Your task to perform on an android device: delete browsing data in the chrome app Image 0: 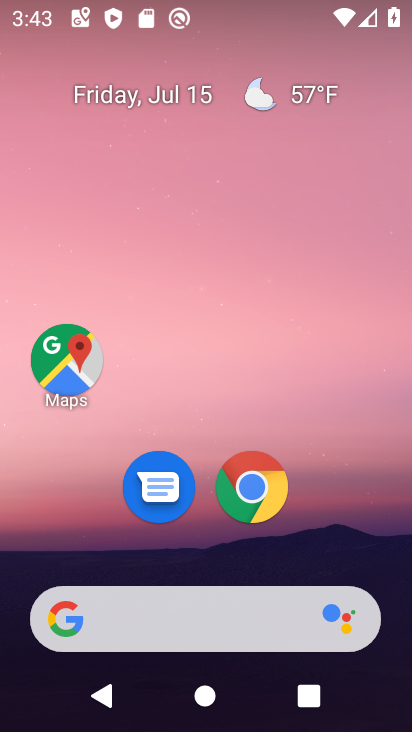
Step 0: drag from (194, 654) to (194, 312)
Your task to perform on an android device: delete browsing data in the chrome app Image 1: 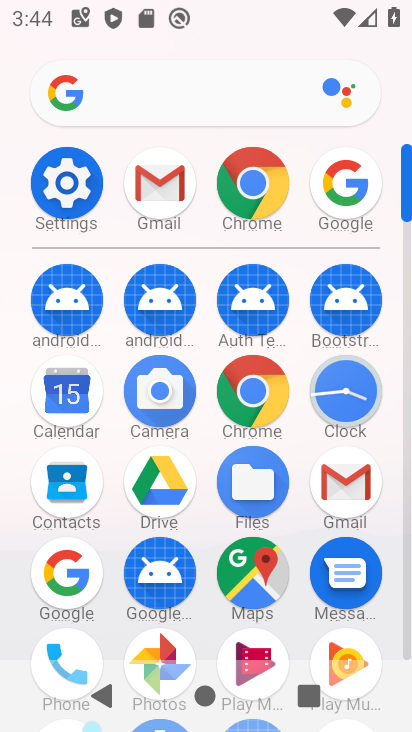
Step 1: click (261, 393)
Your task to perform on an android device: delete browsing data in the chrome app Image 2: 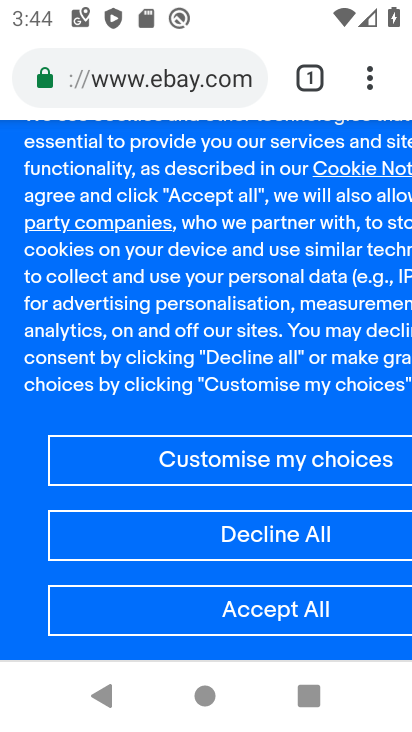
Step 2: click (372, 92)
Your task to perform on an android device: delete browsing data in the chrome app Image 3: 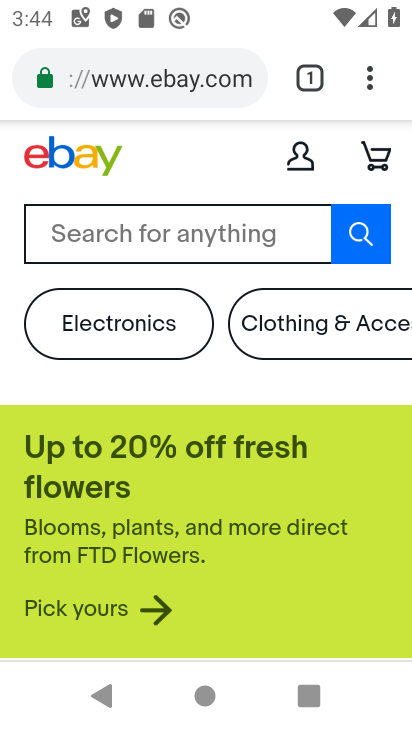
Step 3: click (370, 85)
Your task to perform on an android device: delete browsing data in the chrome app Image 4: 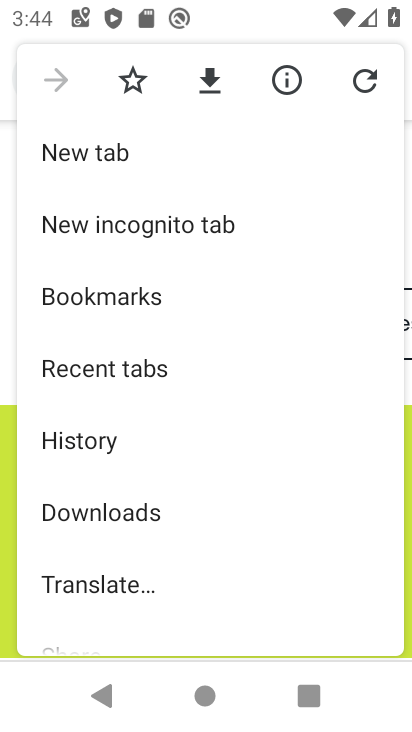
Step 4: click (94, 440)
Your task to perform on an android device: delete browsing data in the chrome app Image 5: 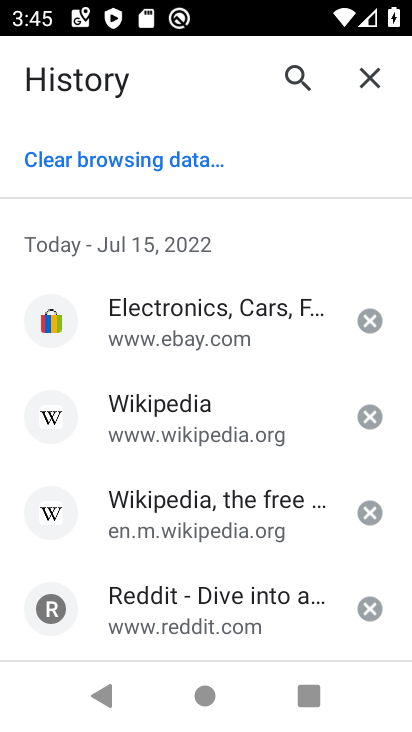
Step 5: click (102, 166)
Your task to perform on an android device: delete browsing data in the chrome app Image 6: 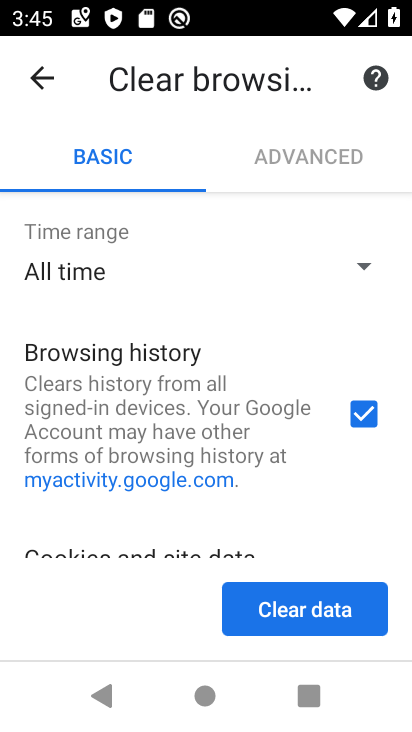
Step 6: click (351, 599)
Your task to perform on an android device: delete browsing data in the chrome app Image 7: 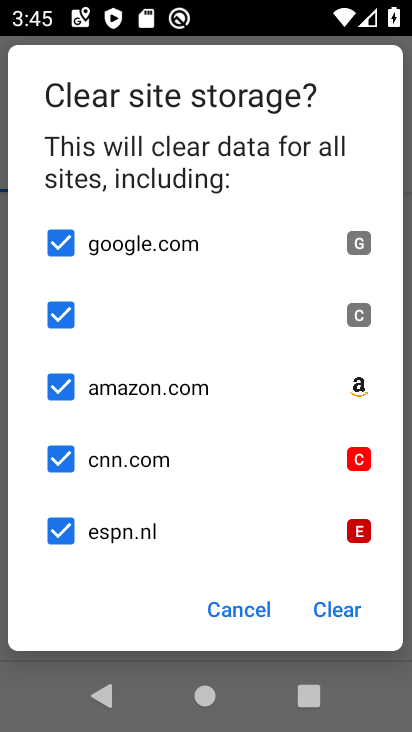
Step 7: click (342, 615)
Your task to perform on an android device: delete browsing data in the chrome app Image 8: 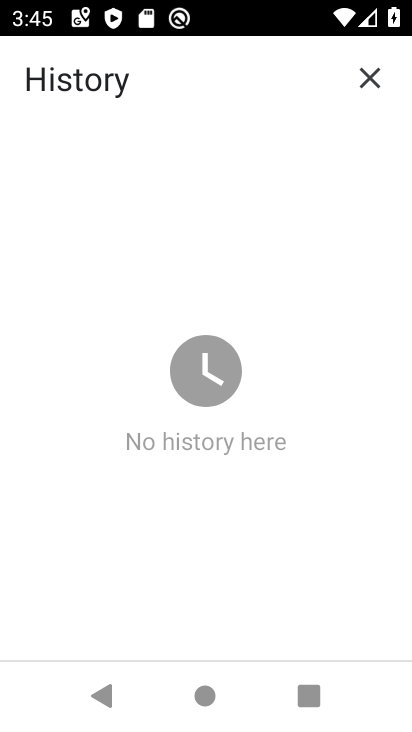
Step 8: task complete